Your task to perform on an android device: snooze an email in the gmail app Image 0: 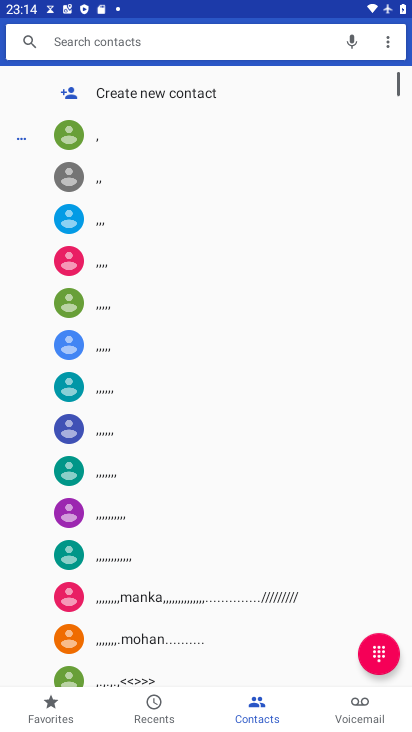
Step 0: press home button
Your task to perform on an android device: snooze an email in the gmail app Image 1: 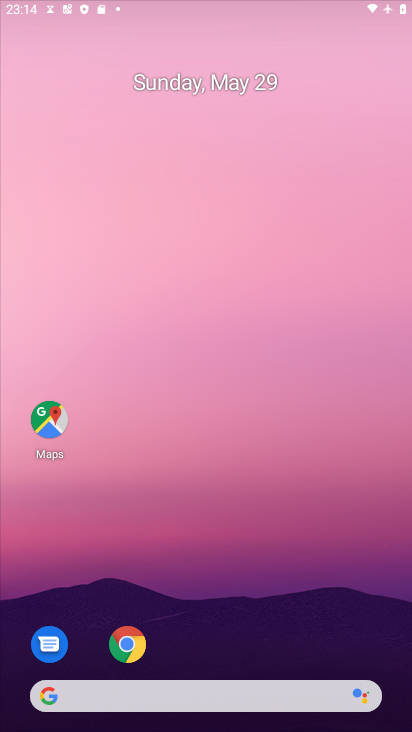
Step 1: drag from (229, 634) to (248, 275)
Your task to perform on an android device: snooze an email in the gmail app Image 2: 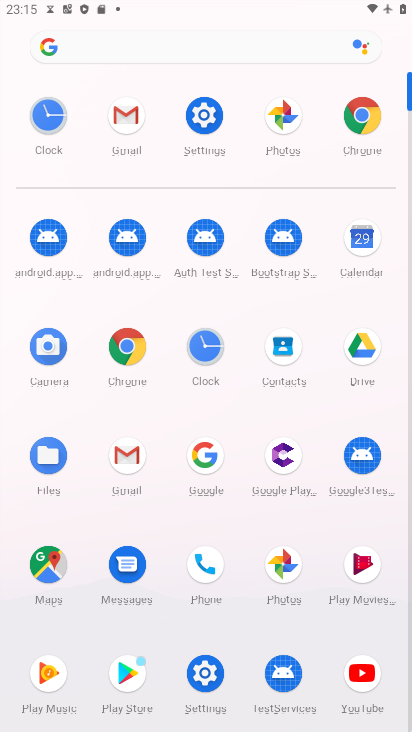
Step 2: click (126, 447)
Your task to perform on an android device: snooze an email in the gmail app Image 3: 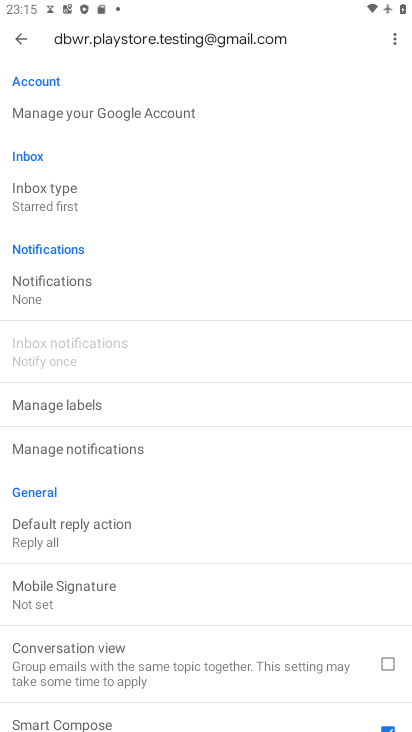
Step 3: drag from (107, 560) to (171, 217)
Your task to perform on an android device: snooze an email in the gmail app Image 4: 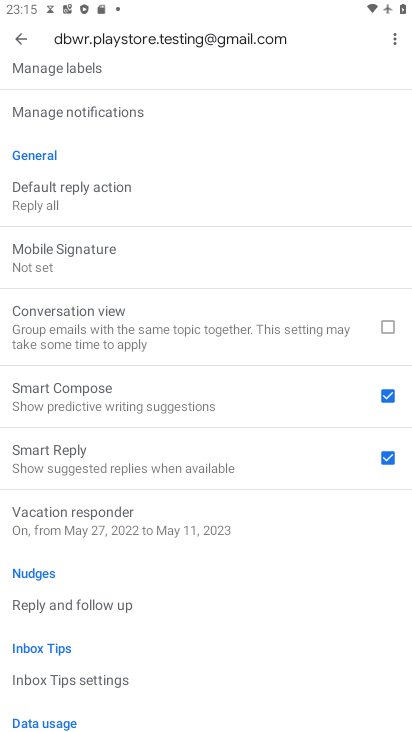
Step 4: drag from (115, 157) to (123, 468)
Your task to perform on an android device: snooze an email in the gmail app Image 5: 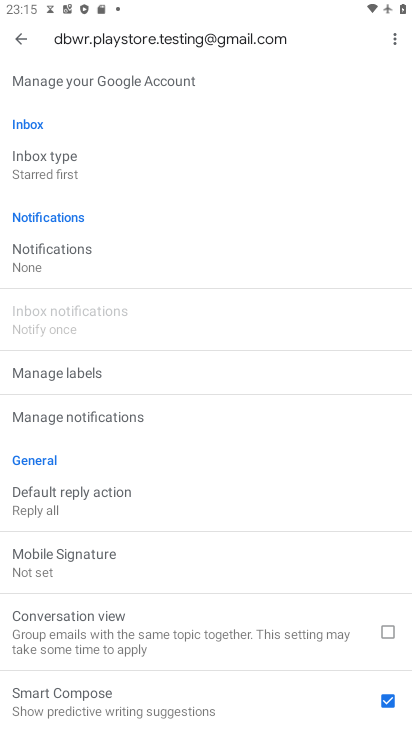
Step 5: drag from (182, 492) to (217, 727)
Your task to perform on an android device: snooze an email in the gmail app Image 6: 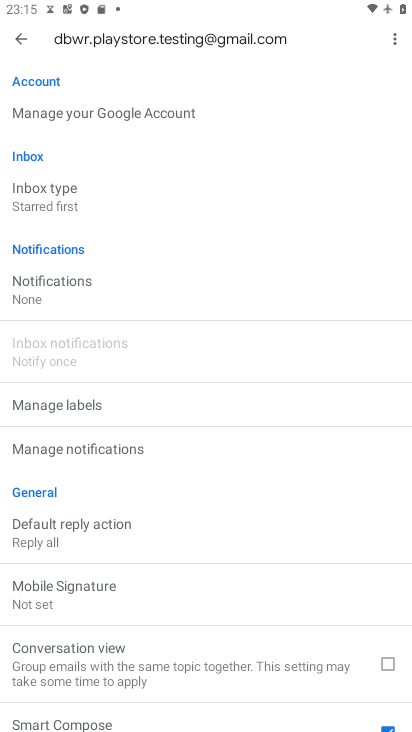
Step 6: click (24, 28)
Your task to perform on an android device: snooze an email in the gmail app Image 7: 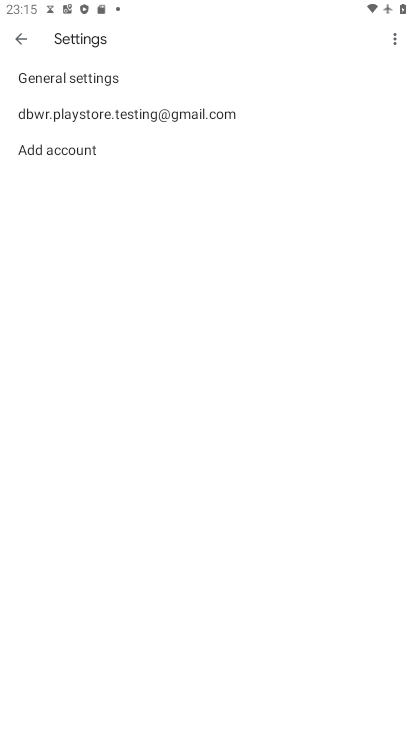
Step 7: click (24, 28)
Your task to perform on an android device: snooze an email in the gmail app Image 8: 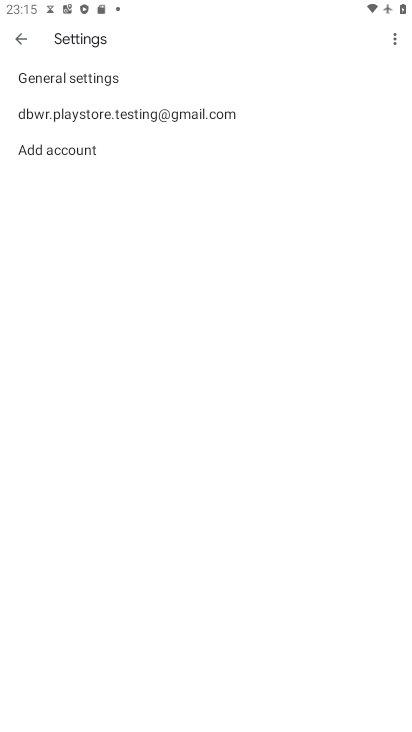
Step 8: click (29, 33)
Your task to perform on an android device: snooze an email in the gmail app Image 9: 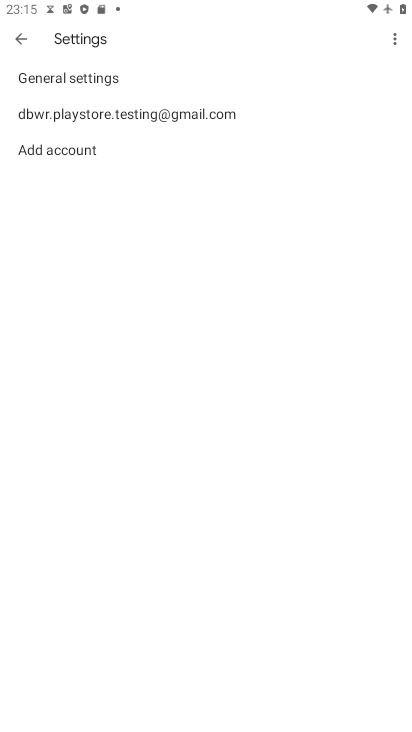
Step 9: click (14, 39)
Your task to perform on an android device: snooze an email in the gmail app Image 10: 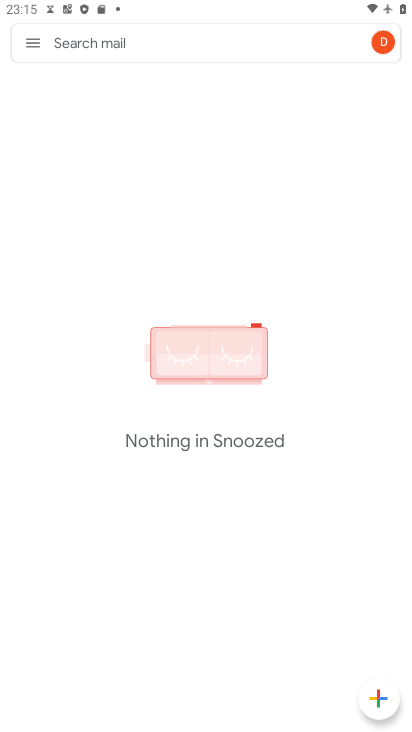
Step 10: click (32, 41)
Your task to perform on an android device: snooze an email in the gmail app Image 11: 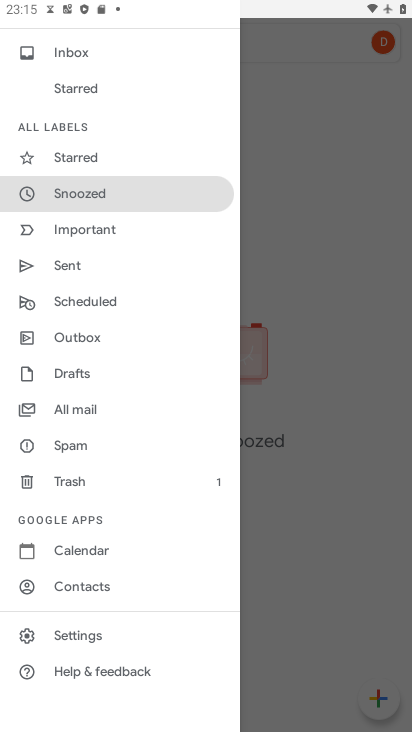
Step 11: click (111, 182)
Your task to perform on an android device: snooze an email in the gmail app Image 12: 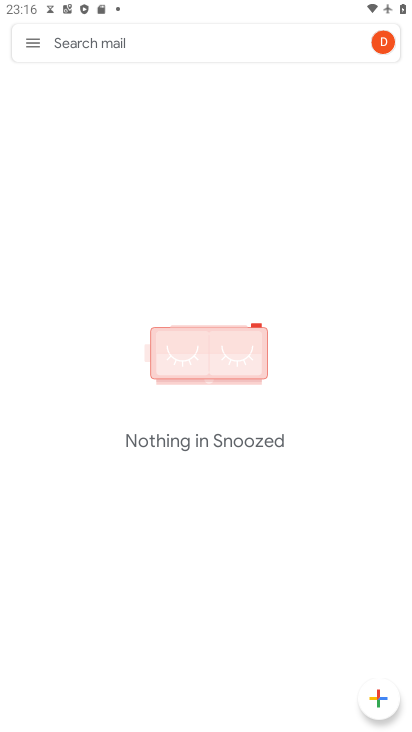
Step 12: task complete